Your task to perform on an android device: Open Maps and search for coffee Image 0: 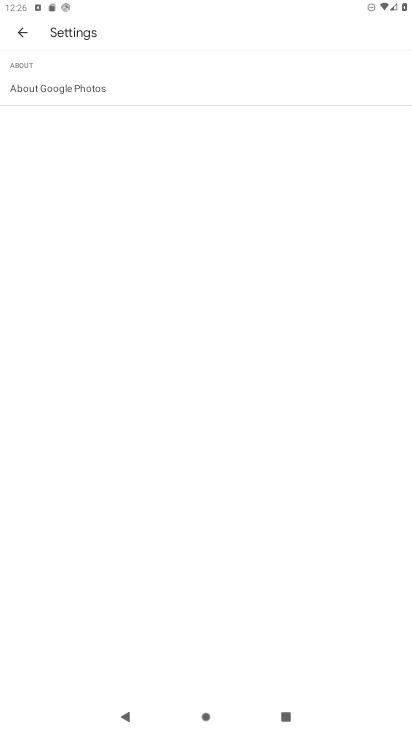
Step 0: press home button
Your task to perform on an android device: Open Maps and search for coffee Image 1: 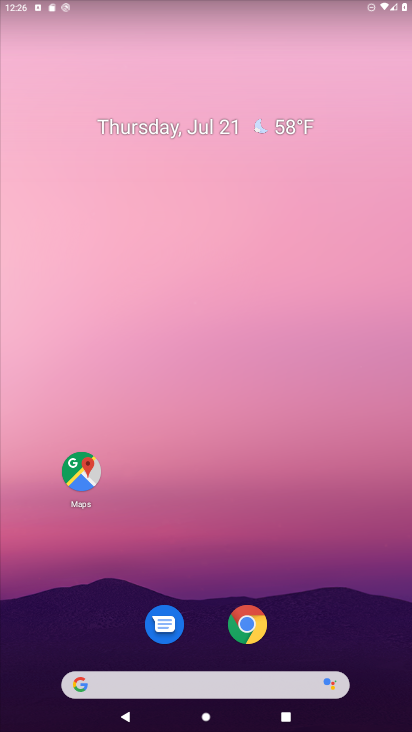
Step 1: click (64, 473)
Your task to perform on an android device: Open Maps and search for coffee Image 2: 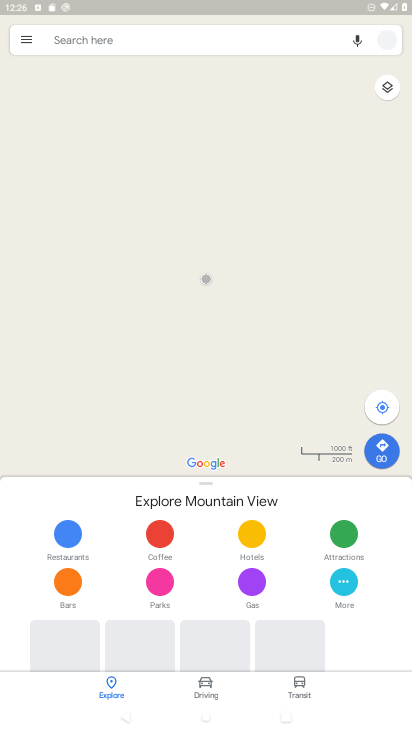
Step 2: click (147, 45)
Your task to perform on an android device: Open Maps and search for coffee Image 3: 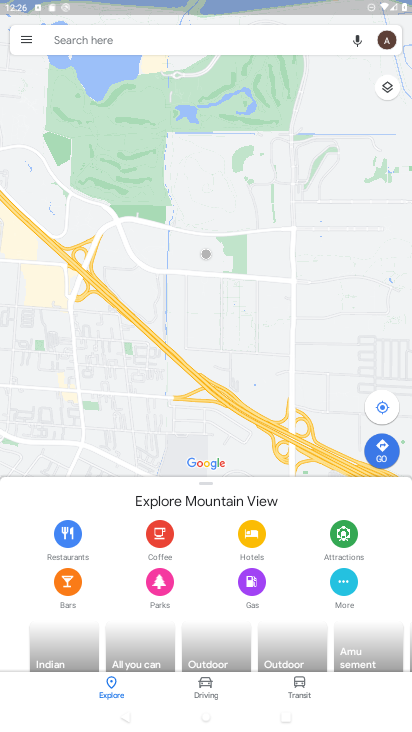
Step 3: click (165, 37)
Your task to perform on an android device: Open Maps and search for coffee Image 4: 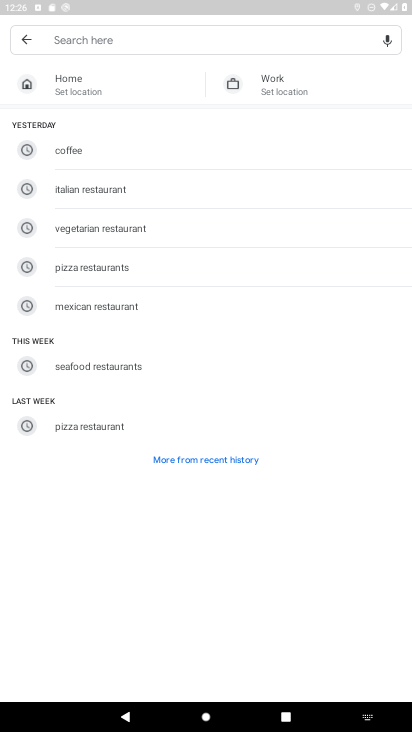
Step 4: click (117, 145)
Your task to perform on an android device: Open Maps and search for coffee Image 5: 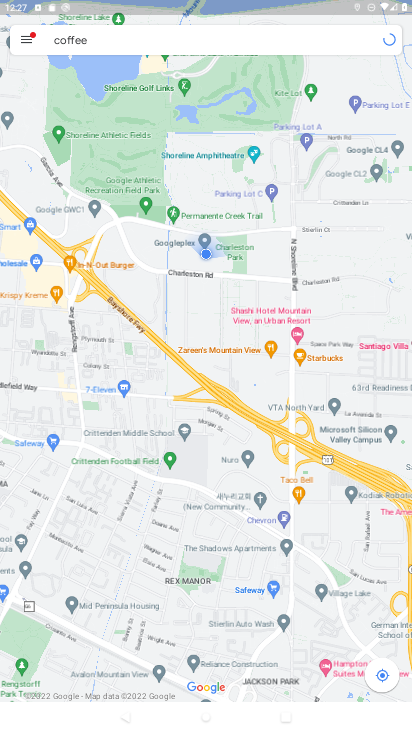
Step 5: task complete